Your task to perform on an android device: What's the weather today? Image 0: 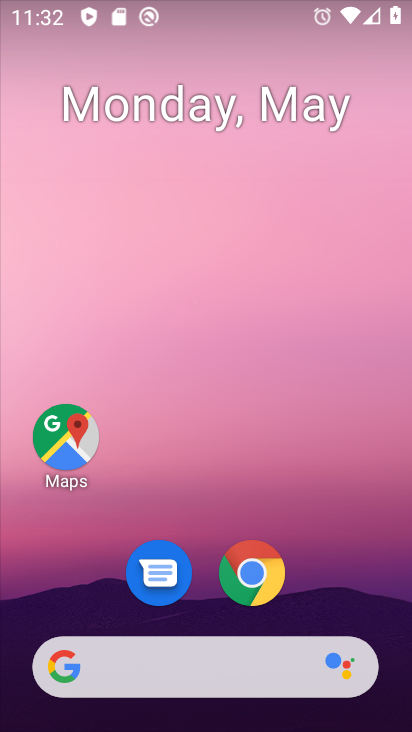
Step 0: press home button
Your task to perform on an android device: What's the weather today? Image 1: 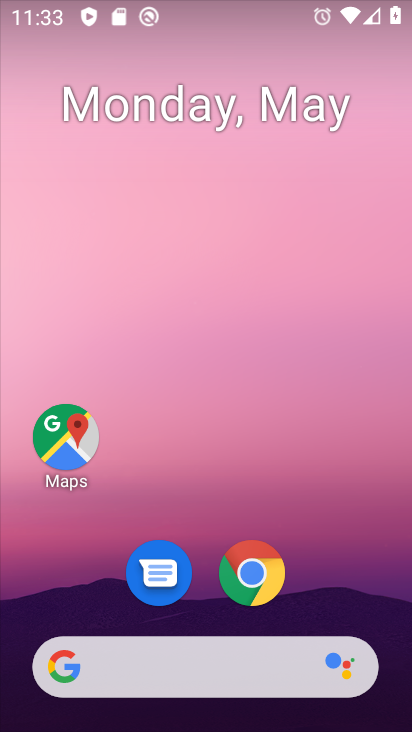
Step 1: click (190, 682)
Your task to perform on an android device: What's the weather today? Image 2: 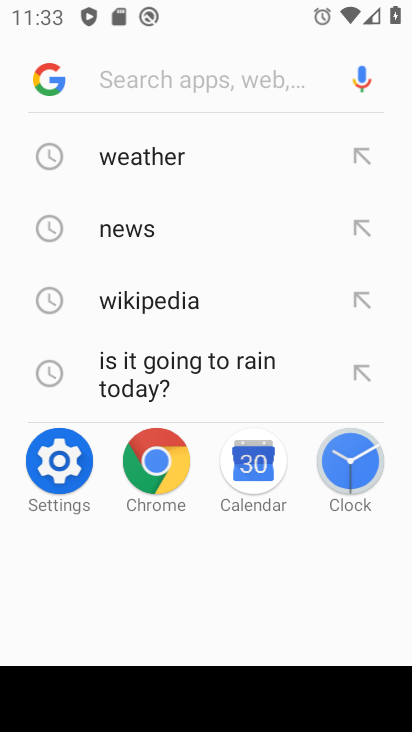
Step 2: click (188, 162)
Your task to perform on an android device: What's the weather today? Image 3: 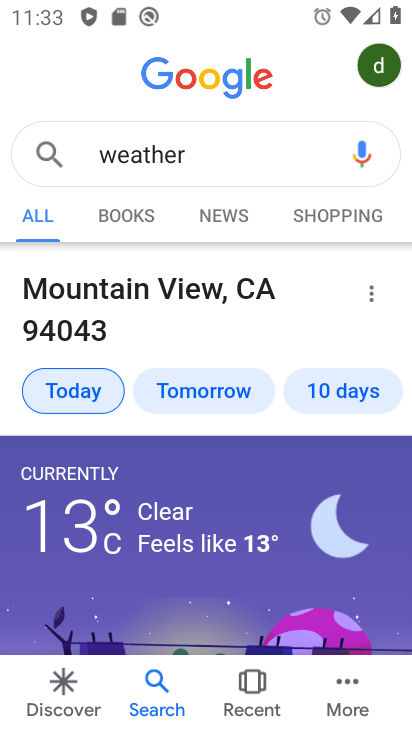
Step 3: task complete